Your task to perform on an android device: Add razer kraken to the cart on newegg Image 0: 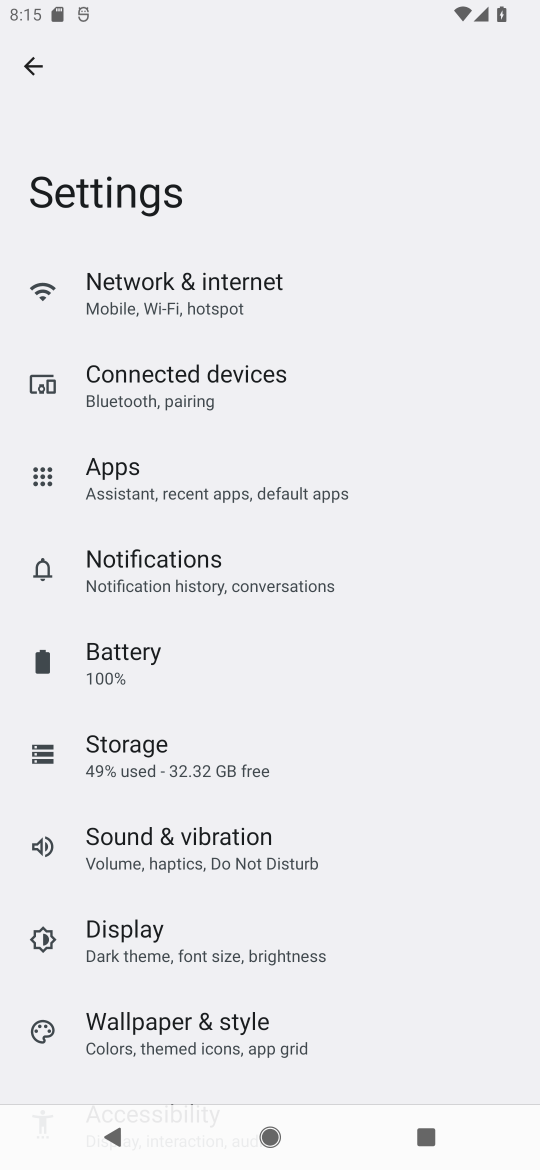
Step 0: press home button
Your task to perform on an android device: Add razer kraken to the cart on newegg Image 1: 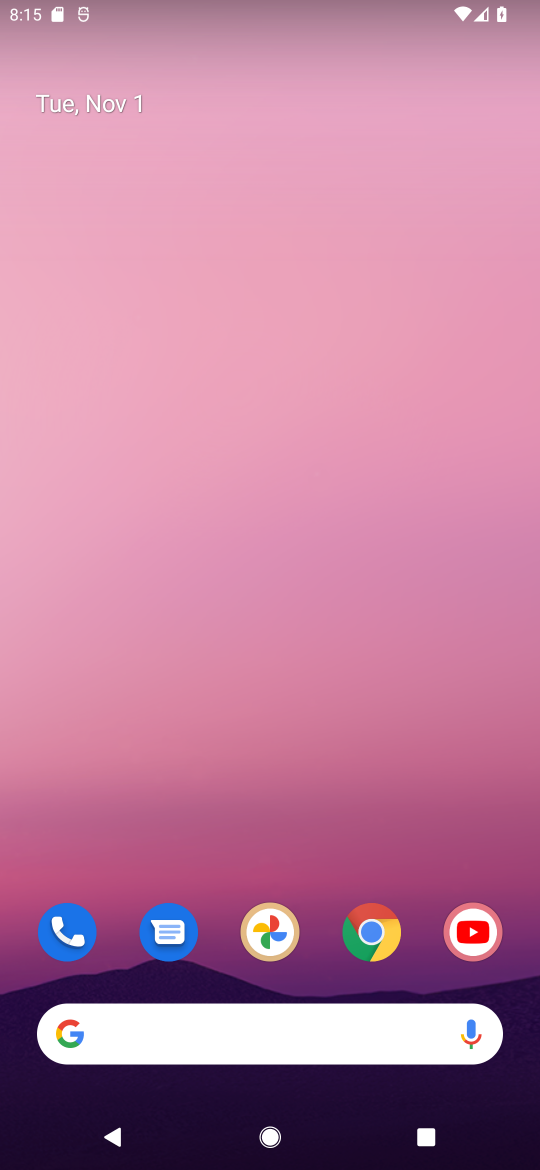
Step 1: click (367, 942)
Your task to perform on an android device: Add razer kraken to the cart on newegg Image 2: 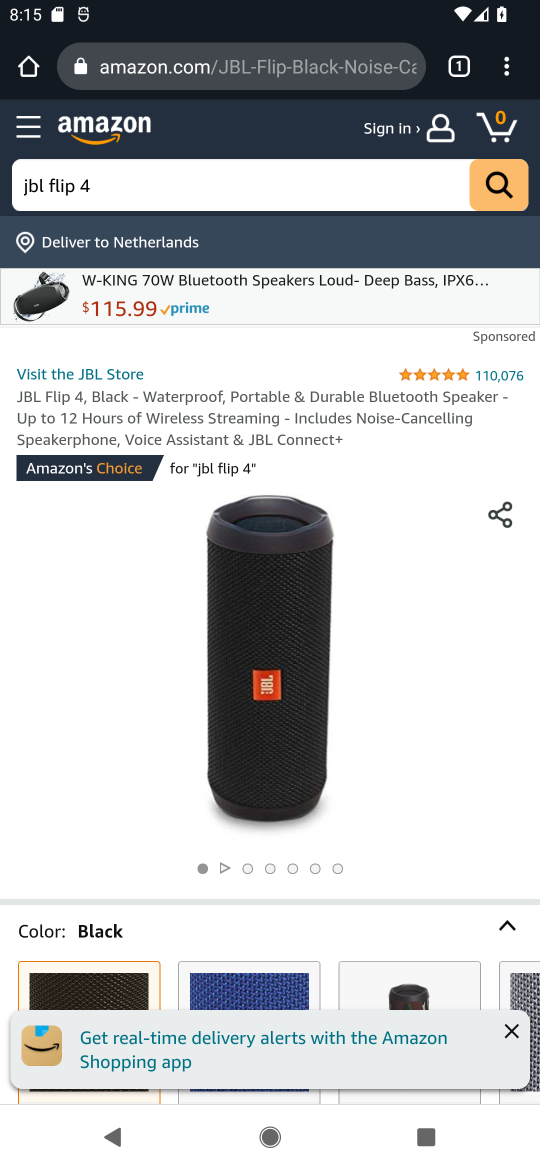
Step 2: click (211, 78)
Your task to perform on an android device: Add razer kraken to the cart on newegg Image 3: 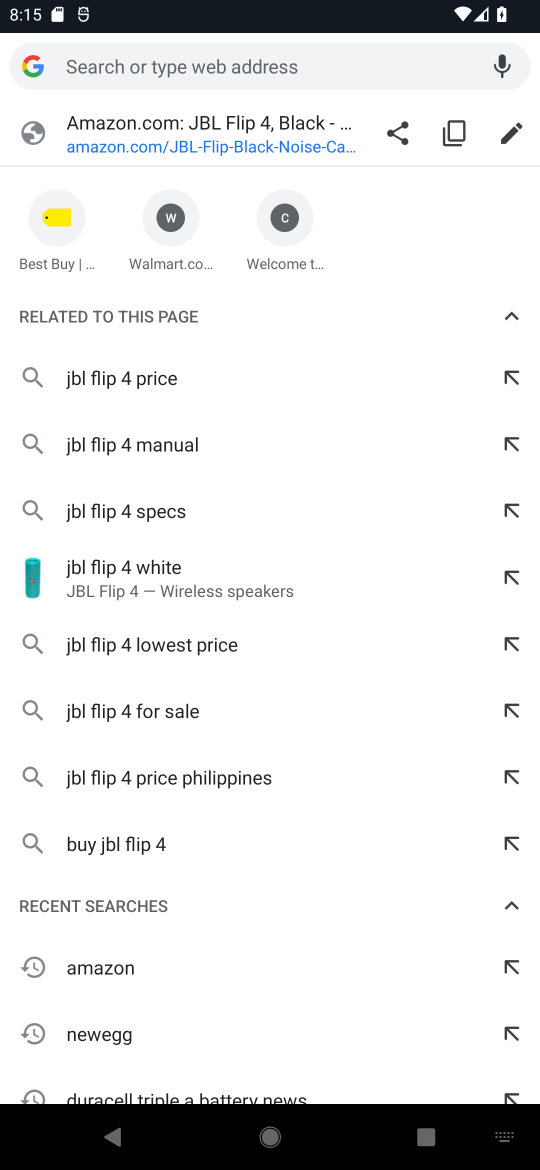
Step 3: type "newegg.com"
Your task to perform on an android device: Add razer kraken to the cart on newegg Image 4: 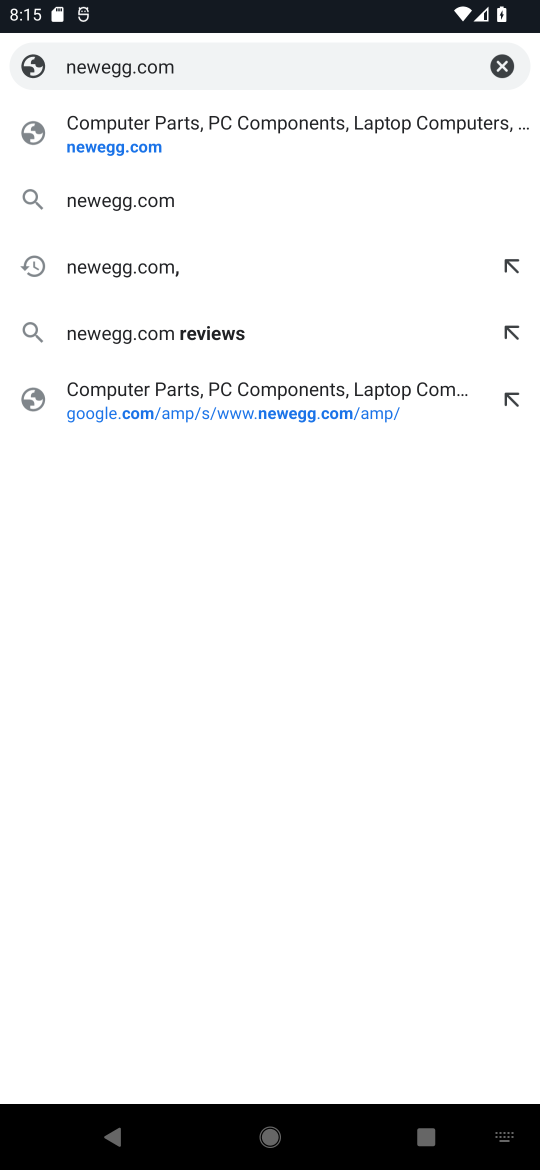
Step 4: click (101, 204)
Your task to perform on an android device: Add razer kraken to the cart on newegg Image 5: 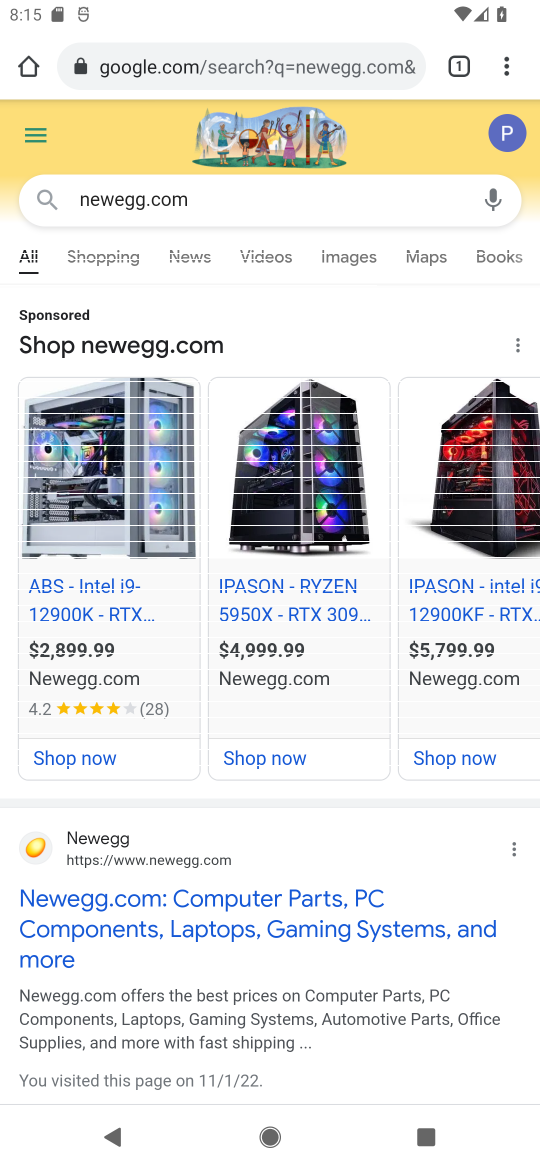
Step 5: click (128, 889)
Your task to perform on an android device: Add razer kraken to the cart on newegg Image 6: 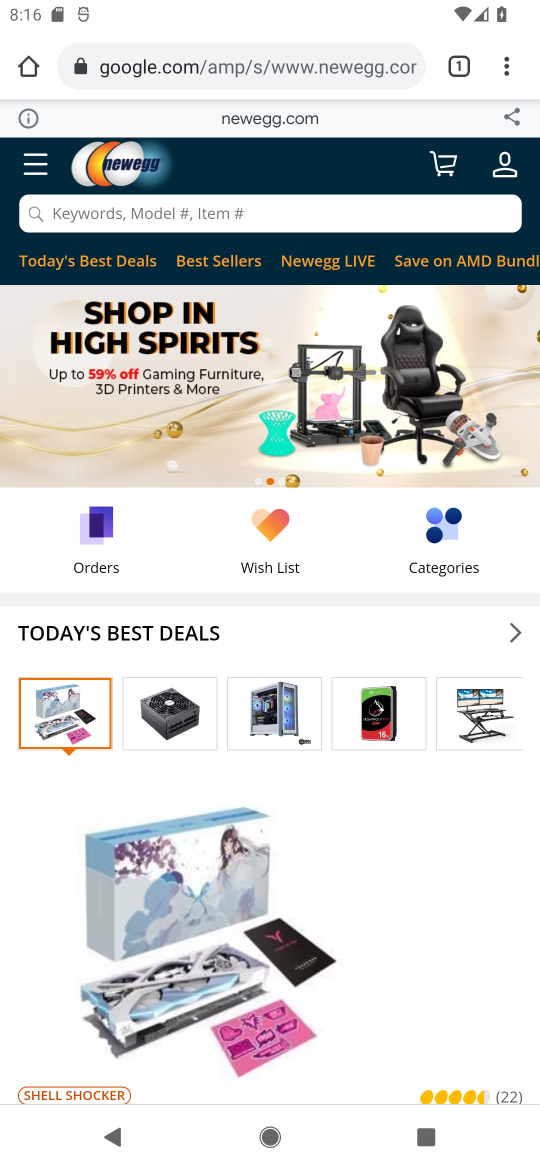
Step 6: click (150, 208)
Your task to perform on an android device: Add razer kraken to the cart on newegg Image 7: 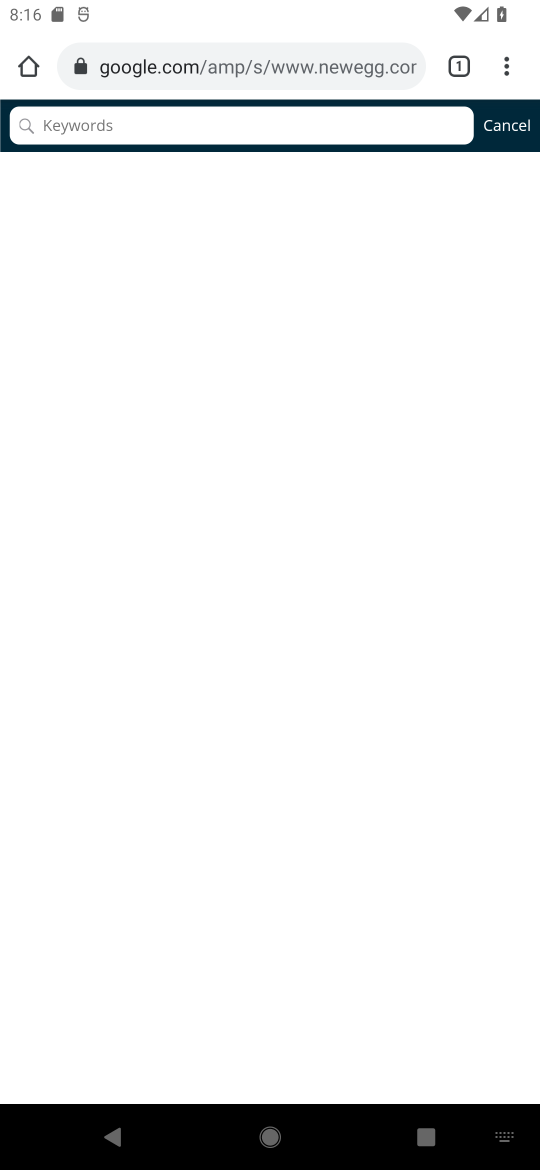
Step 7: type "razer kraken "
Your task to perform on an android device: Add razer kraken to the cart on newegg Image 8: 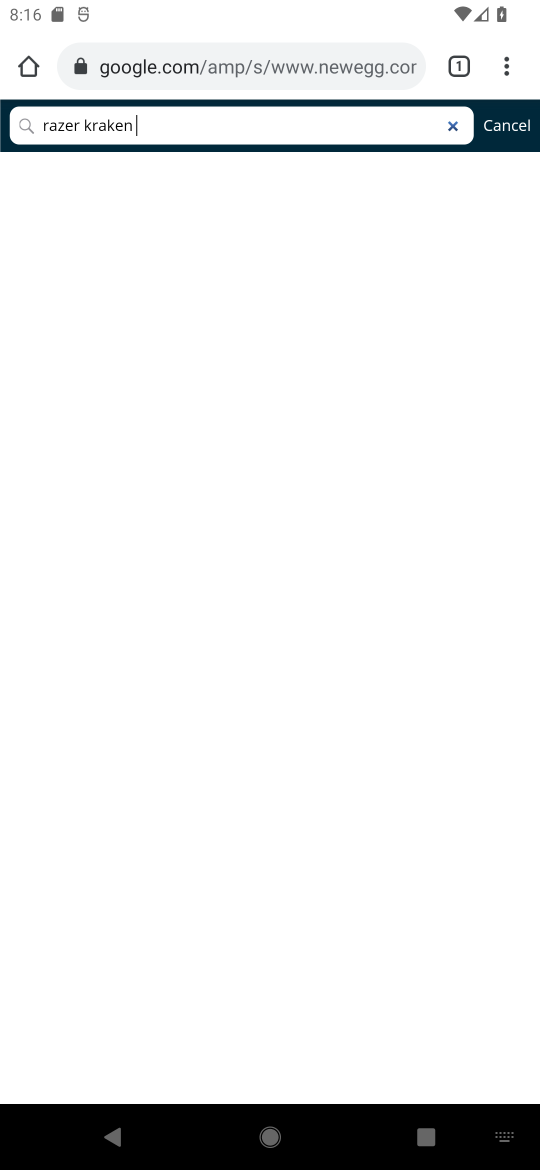
Step 8: click (19, 124)
Your task to perform on an android device: Add razer kraken to the cart on newegg Image 9: 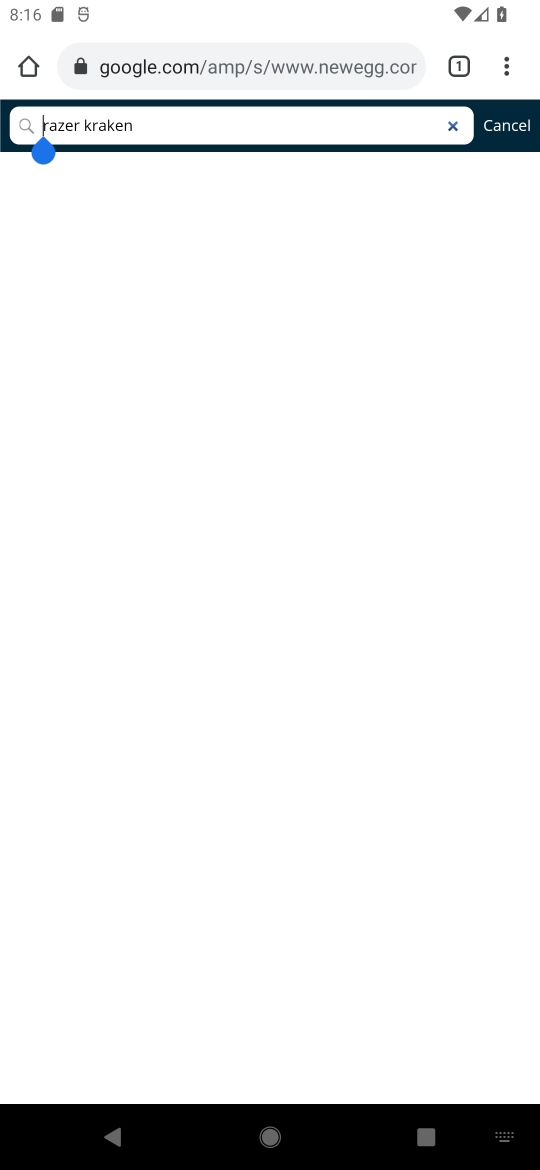
Step 9: task complete